Your task to perform on an android device: Clear the shopping cart on newegg.com. Search for duracell triple a on newegg.com, select the first entry, add it to the cart, then select checkout. Image 0: 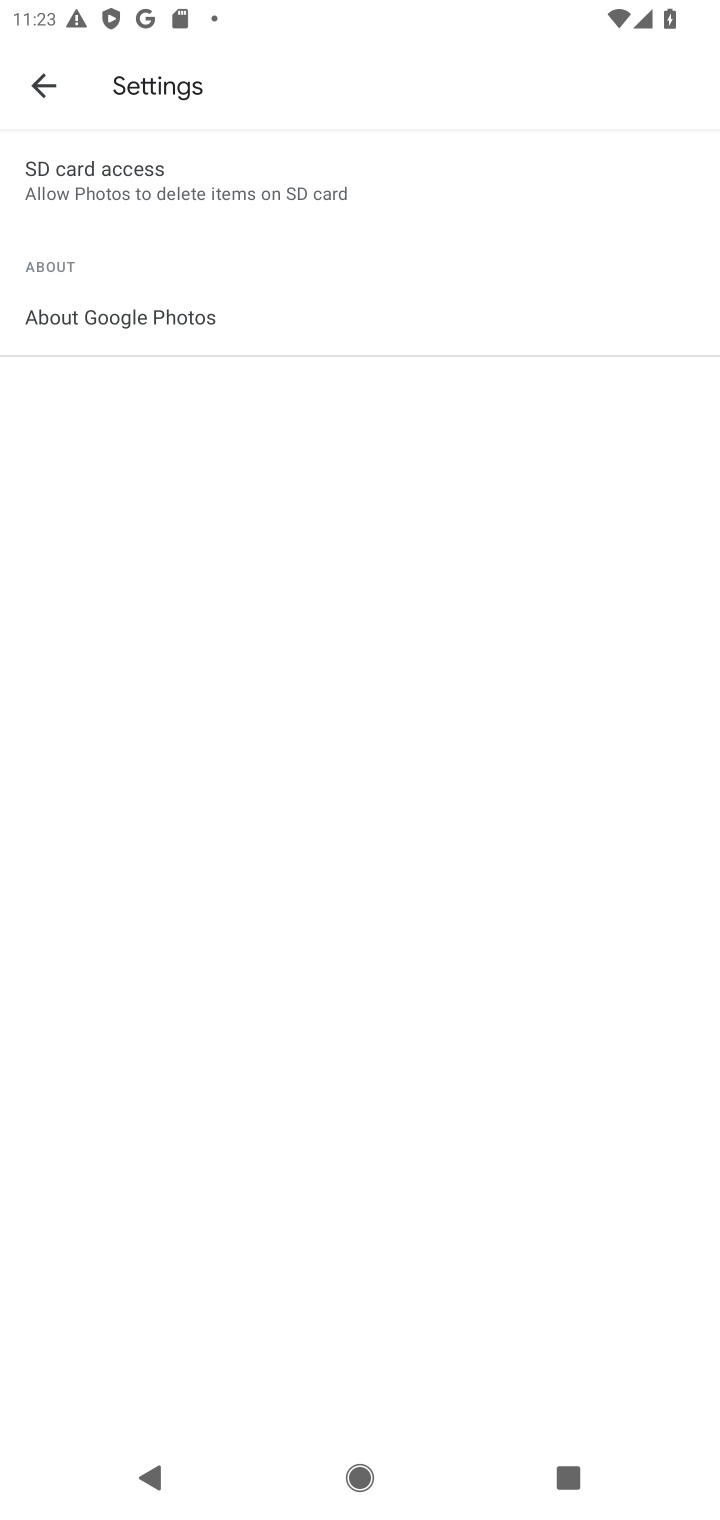
Step 0: press home button
Your task to perform on an android device: Clear the shopping cart on newegg.com. Search for duracell triple a on newegg.com, select the first entry, add it to the cart, then select checkout. Image 1: 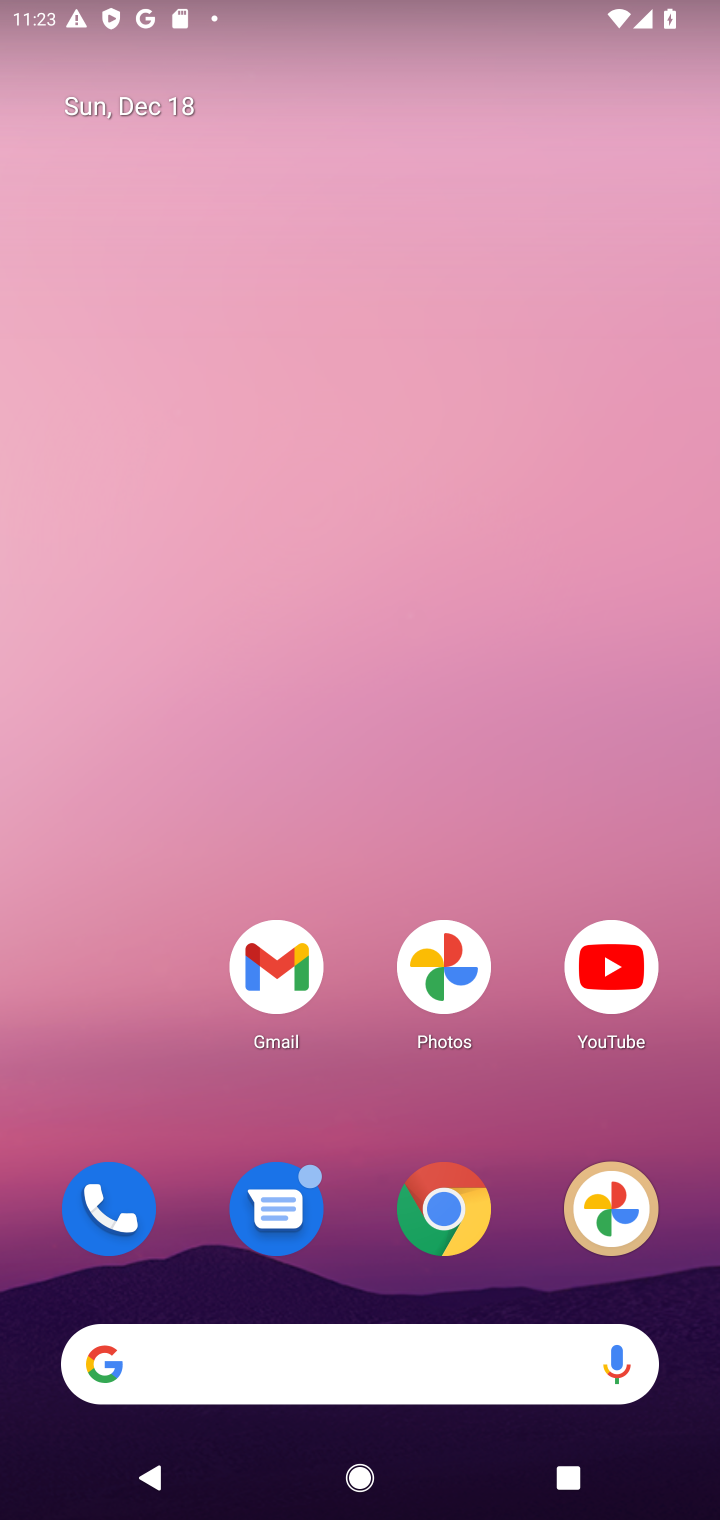
Step 1: click (444, 1185)
Your task to perform on an android device: Clear the shopping cart on newegg.com. Search for duracell triple a on newegg.com, select the first entry, add it to the cart, then select checkout. Image 2: 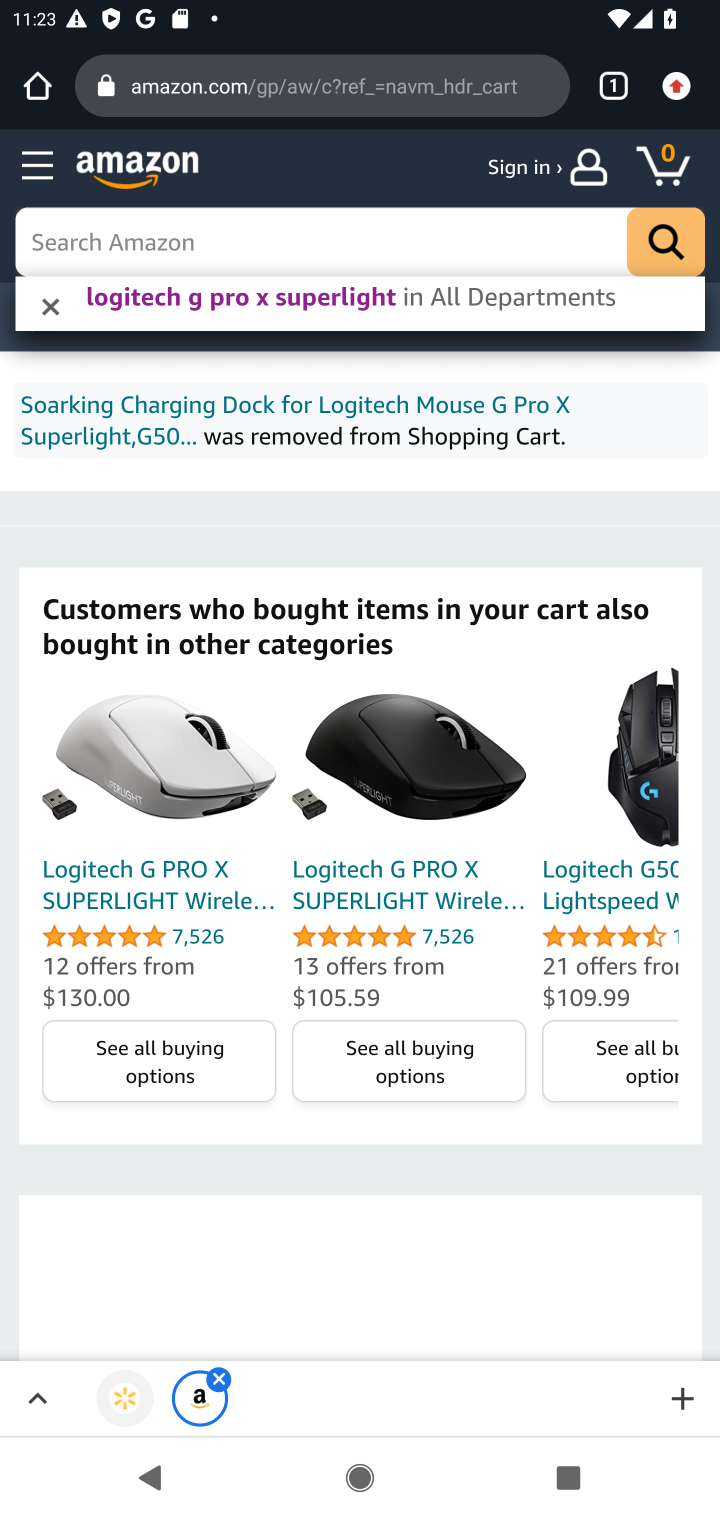
Step 2: click (333, 91)
Your task to perform on an android device: Clear the shopping cart on newegg.com. Search for duracell triple a on newegg.com, select the first entry, add it to the cart, then select checkout. Image 3: 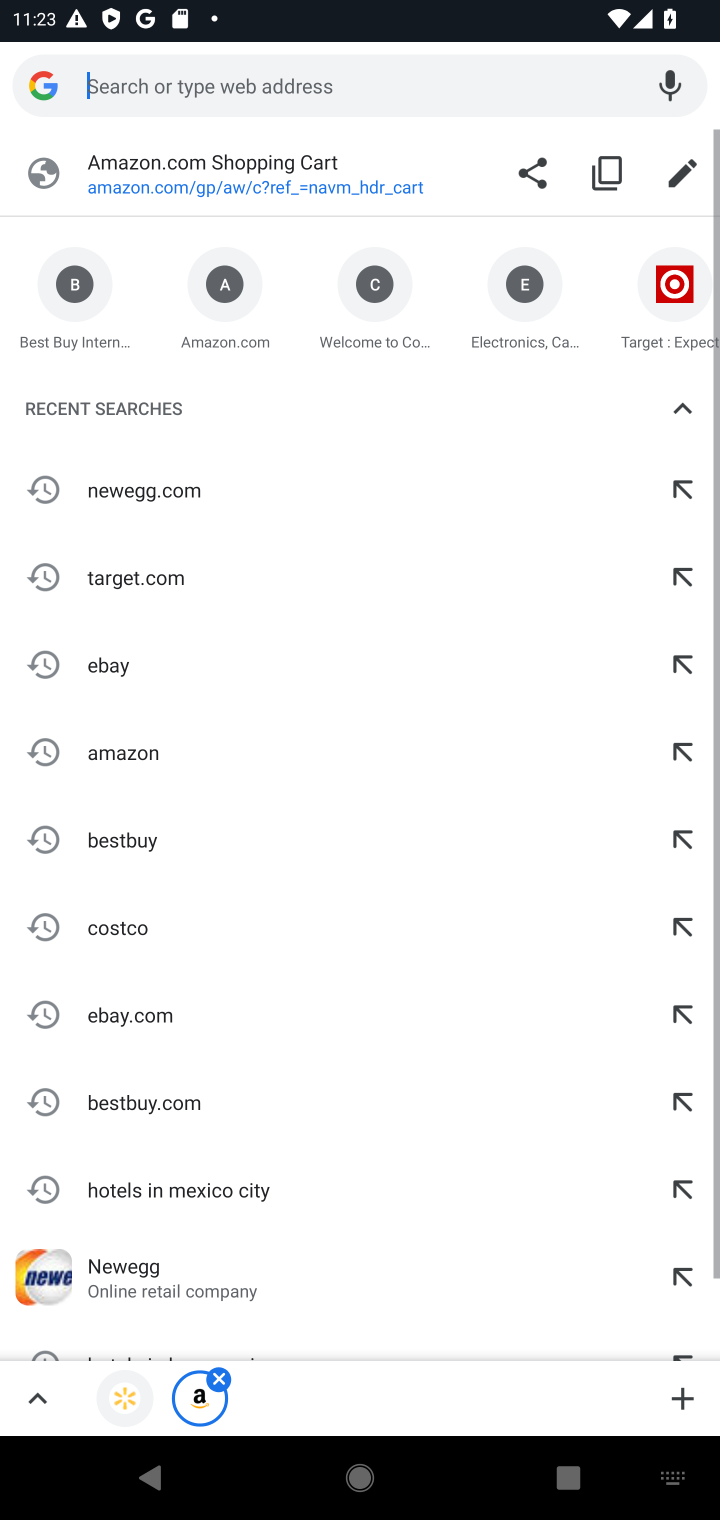
Step 3: click (177, 487)
Your task to perform on an android device: Clear the shopping cart on newegg.com. Search for duracell triple a on newegg.com, select the first entry, add it to the cart, then select checkout. Image 4: 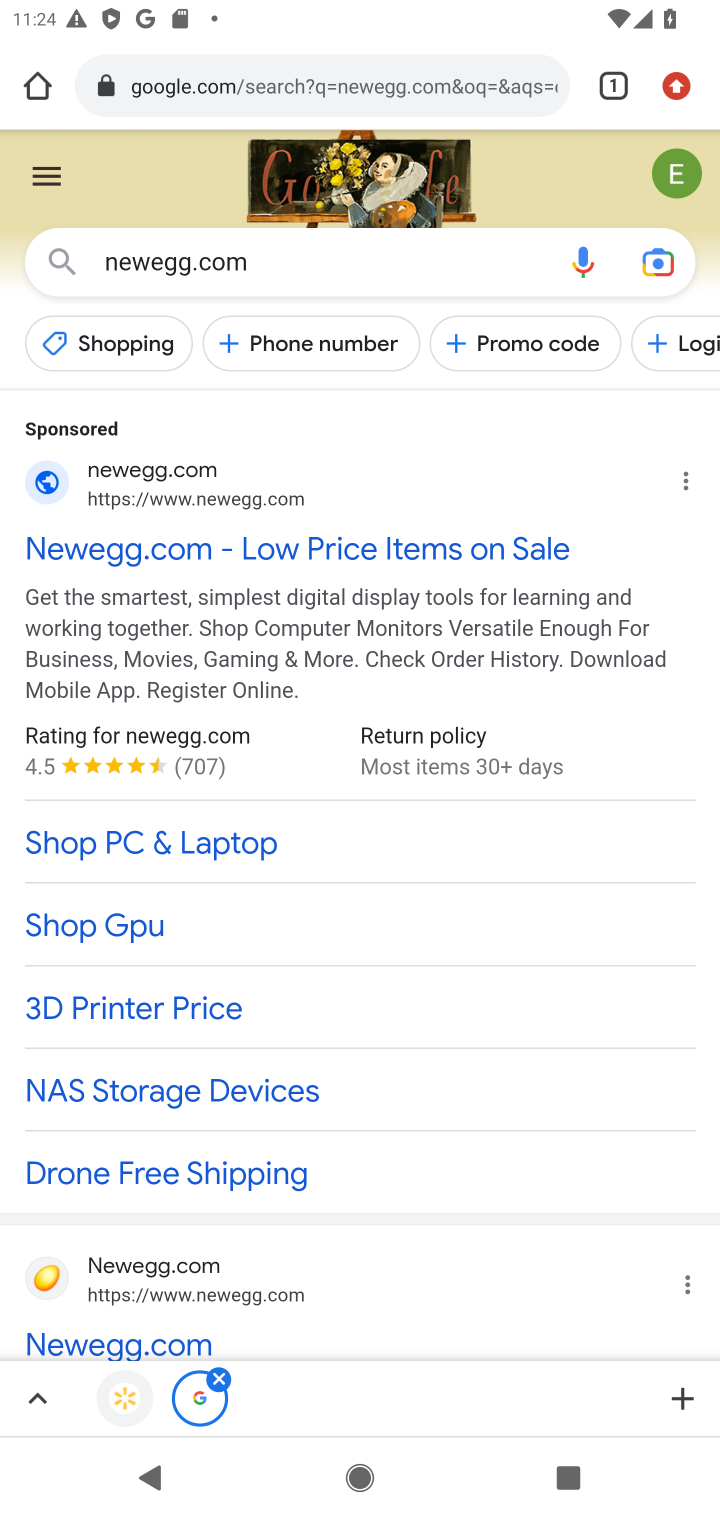
Step 4: click (443, 550)
Your task to perform on an android device: Clear the shopping cart on newegg.com. Search for duracell triple a on newegg.com, select the first entry, add it to the cart, then select checkout. Image 5: 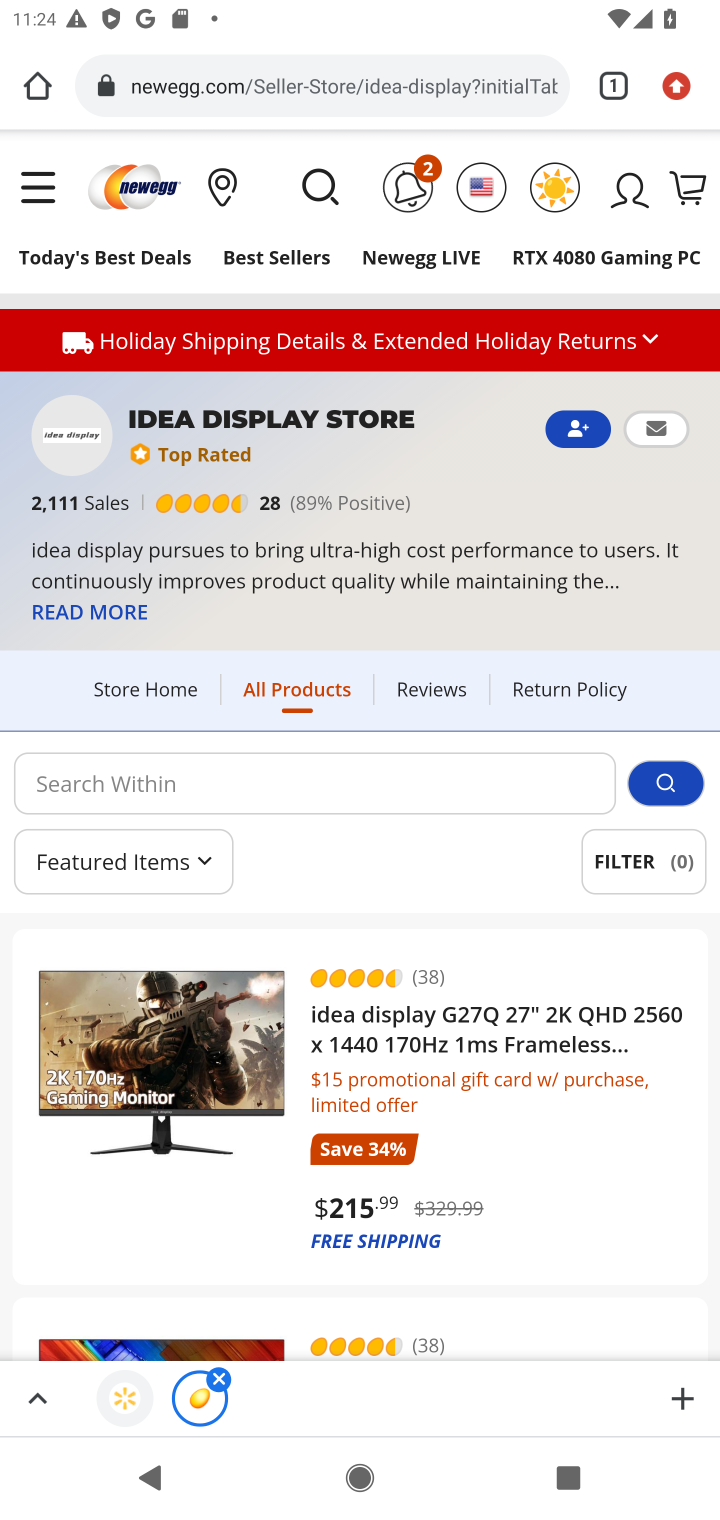
Step 5: click (150, 184)
Your task to perform on an android device: Clear the shopping cart on newegg.com. Search for duracell triple a on newegg.com, select the first entry, add it to the cart, then select checkout. Image 6: 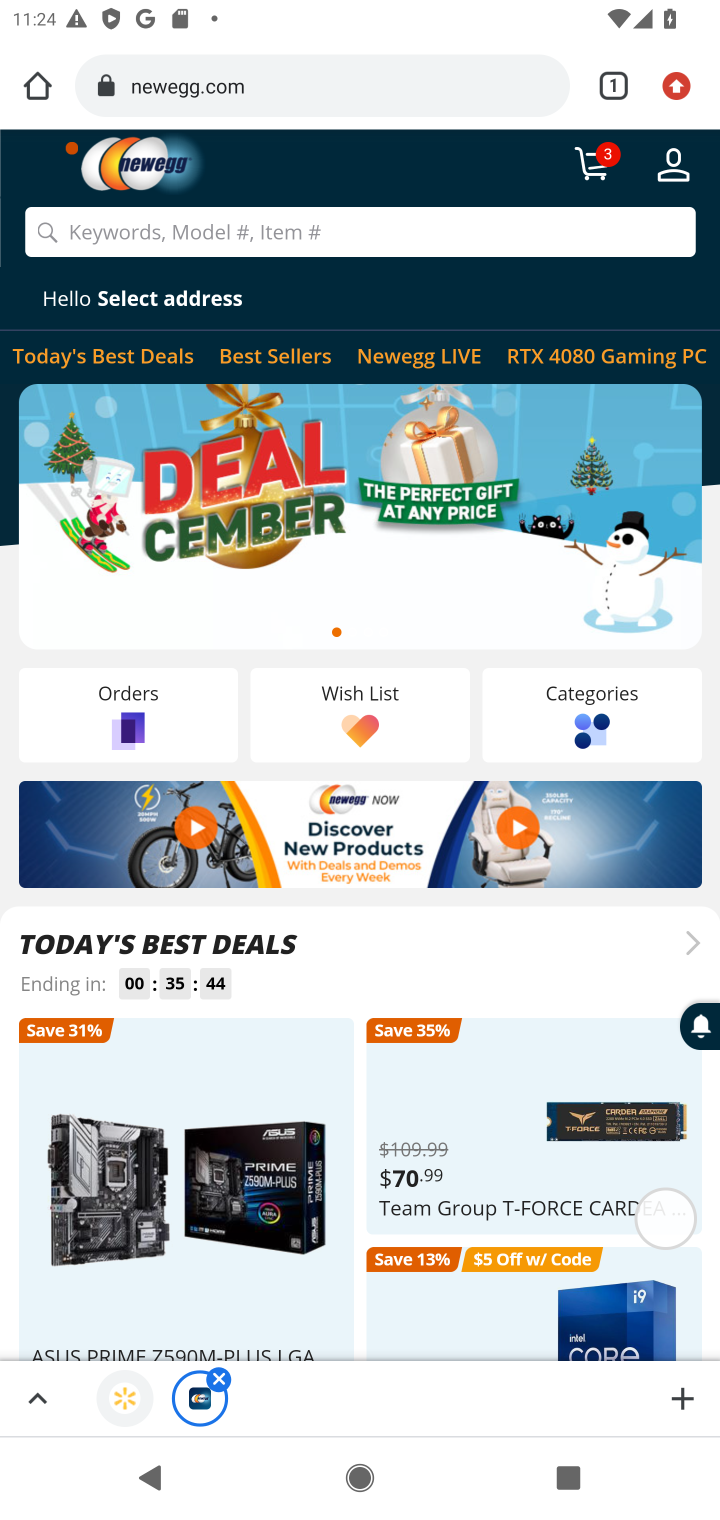
Step 6: click (492, 235)
Your task to perform on an android device: Clear the shopping cart on newegg.com. Search for duracell triple a on newegg.com, select the first entry, add it to the cart, then select checkout. Image 7: 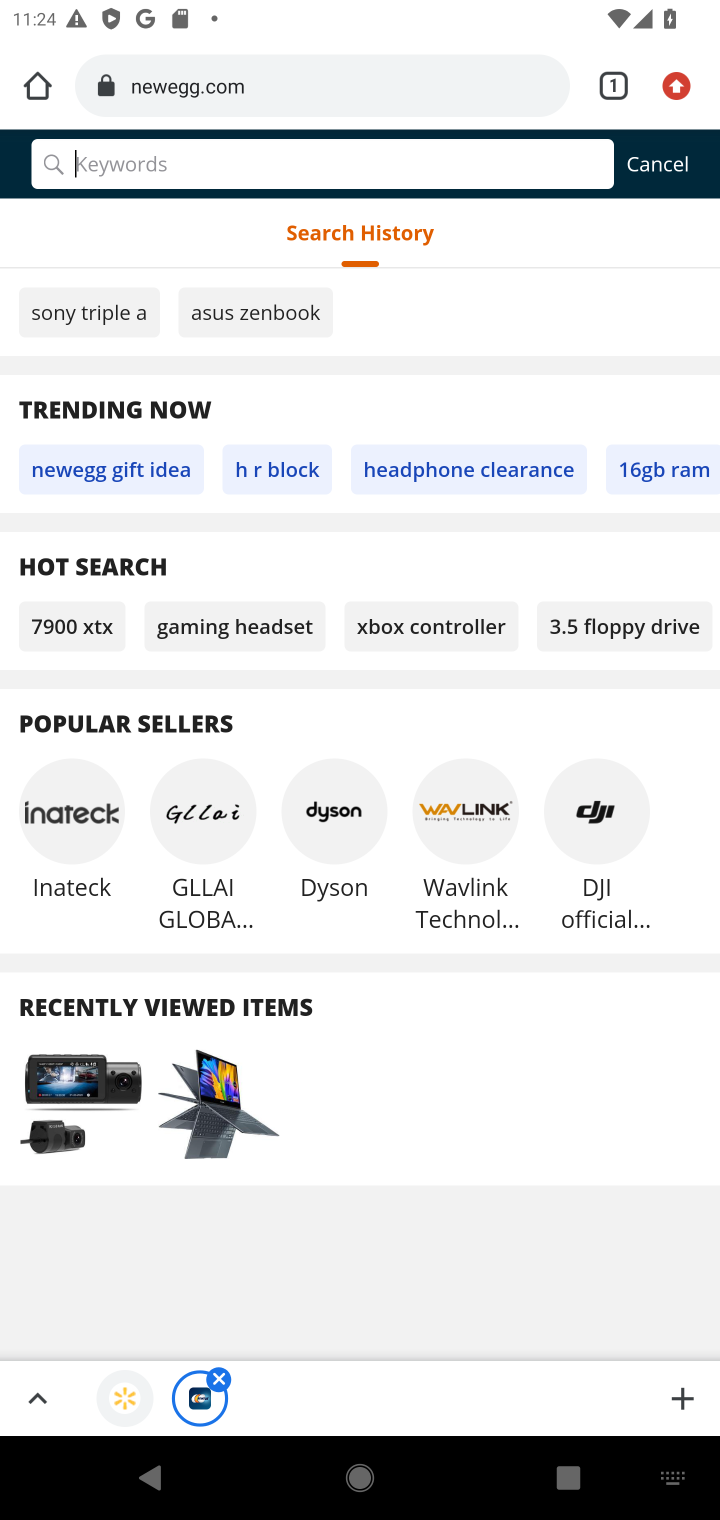
Step 7: type "duracell triple a"
Your task to perform on an android device: Clear the shopping cart on newegg.com. Search for duracell triple a on newegg.com, select the first entry, add it to the cart, then select checkout. Image 8: 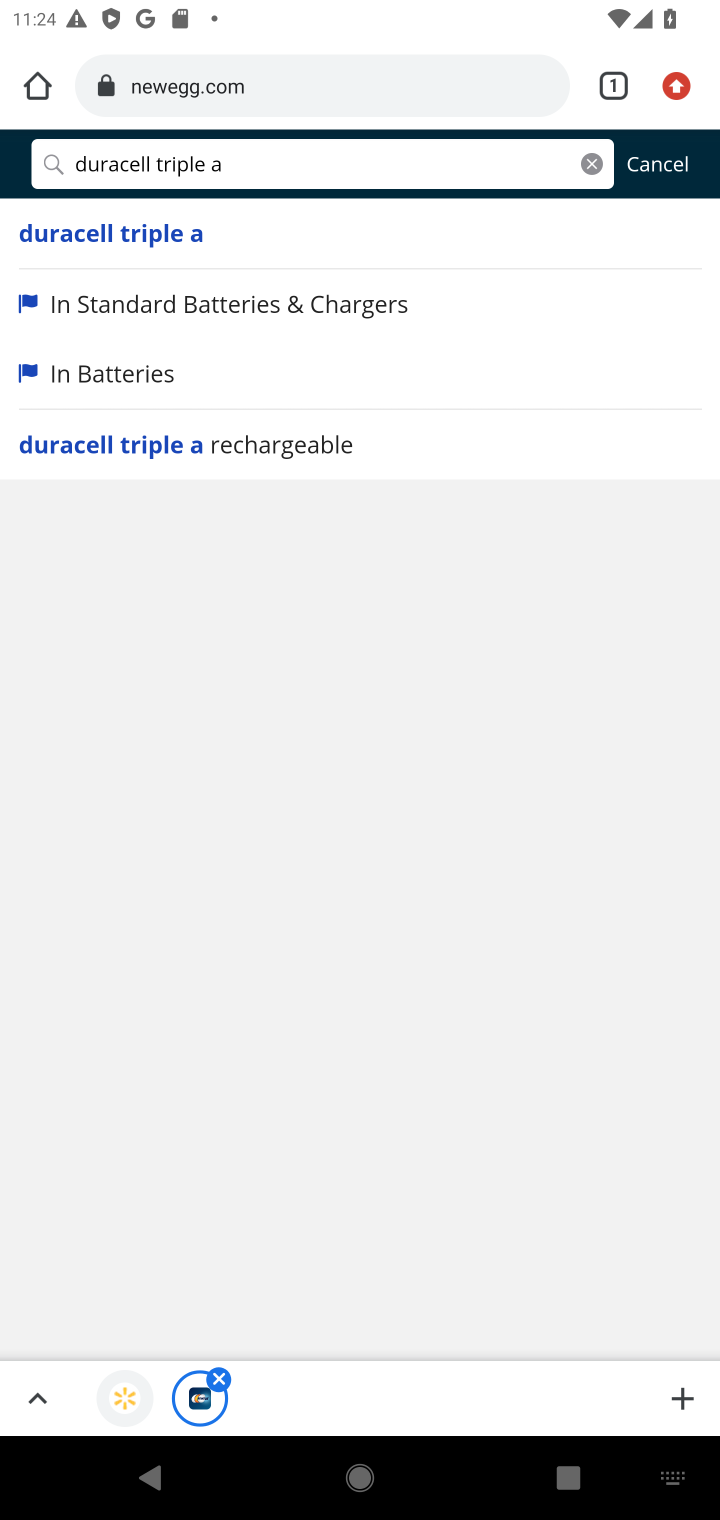
Step 8: click (103, 242)
Your task to perform on an android device: Clear the shopping cart on newegg.com. Search for duracell triple a on newegg.com, select the first entry, add it to the cart, then select checkout. Image 9: 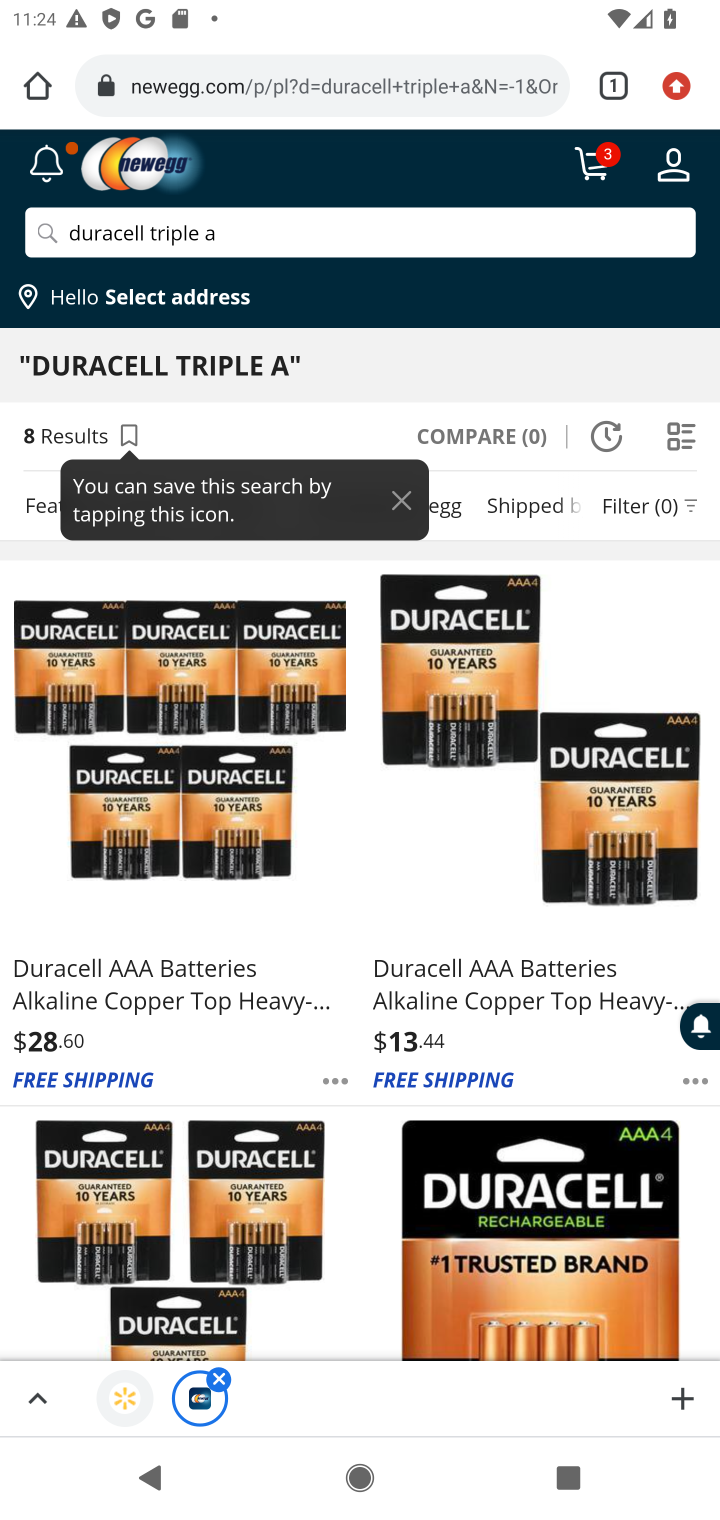
Step 9: click (251, 762)
Your task to perform on an android device: Clear the shopping cart on newegg.com. Search for duracell triple a on newegg.com, select the first entry, add it to the cart, then select checkout. Image 10: 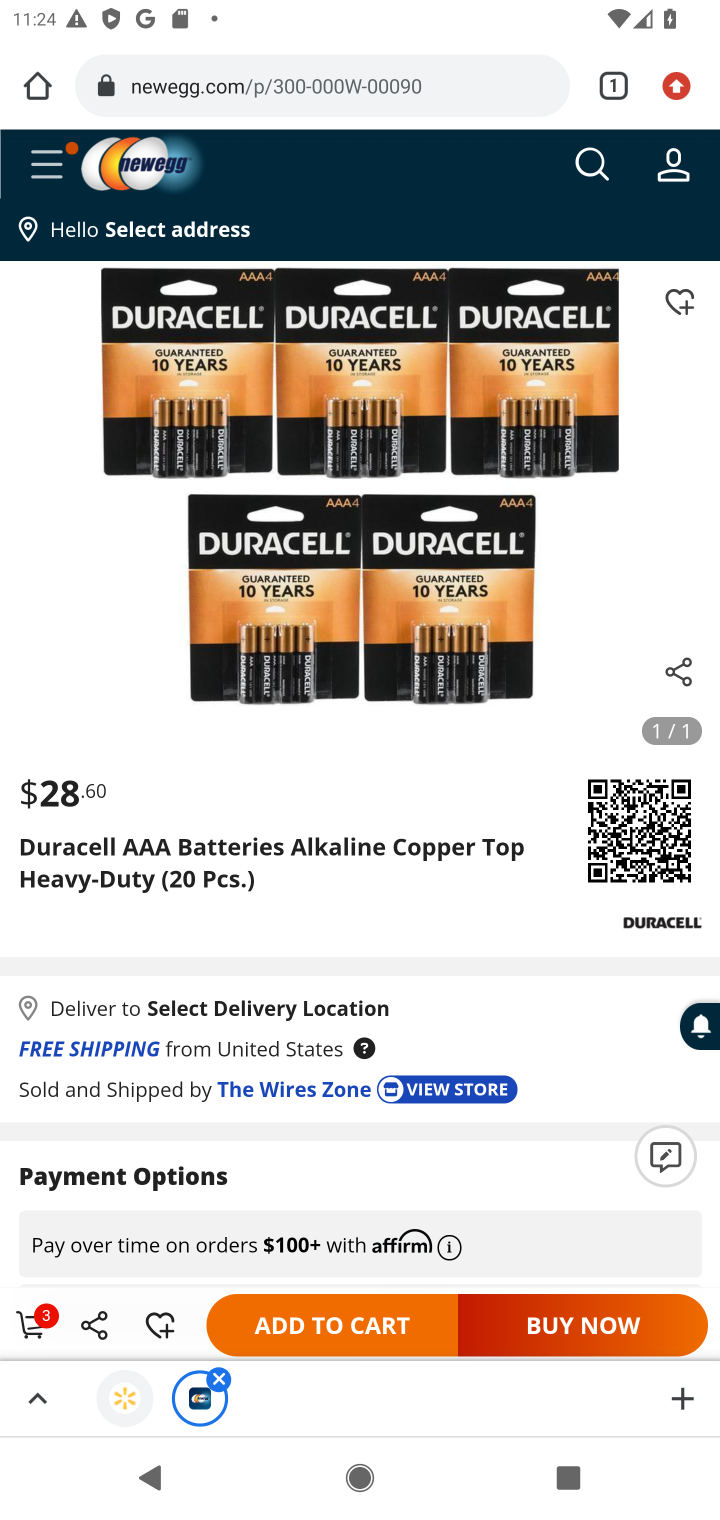
Step 10: click (349, 1327)
Your task to perform on an android device: Clear the shopping cart on newegg.com. Search for duracell triple a on newegg.com, select the first entry, add it to the cart, then select checkout. Image 11: 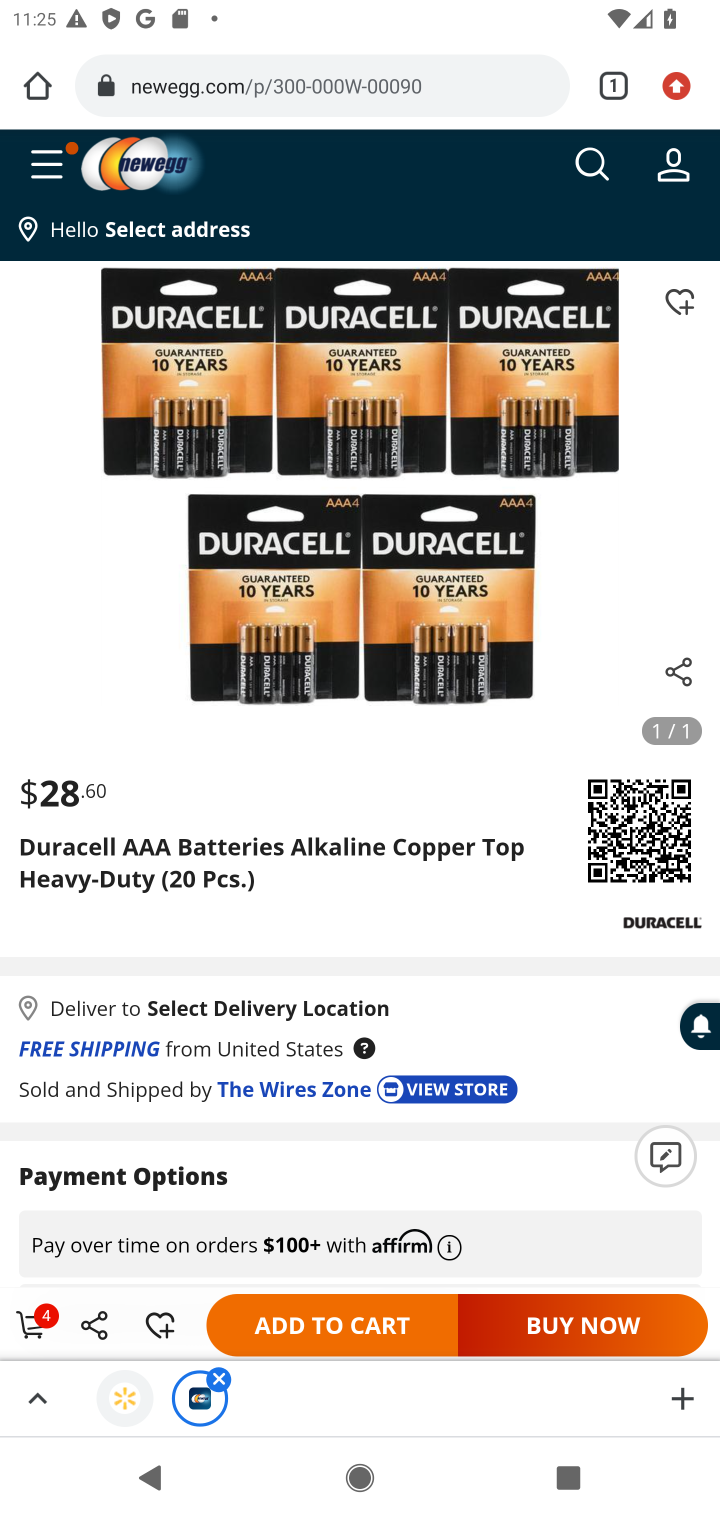
Step 11: click (30, 1324)
Your task to perform on an android device: Clear the shopping cart on newegg.com. Search for duracell triple a on newegg.com, select the first entry, add it to the cart, then select checkout. Image 12: 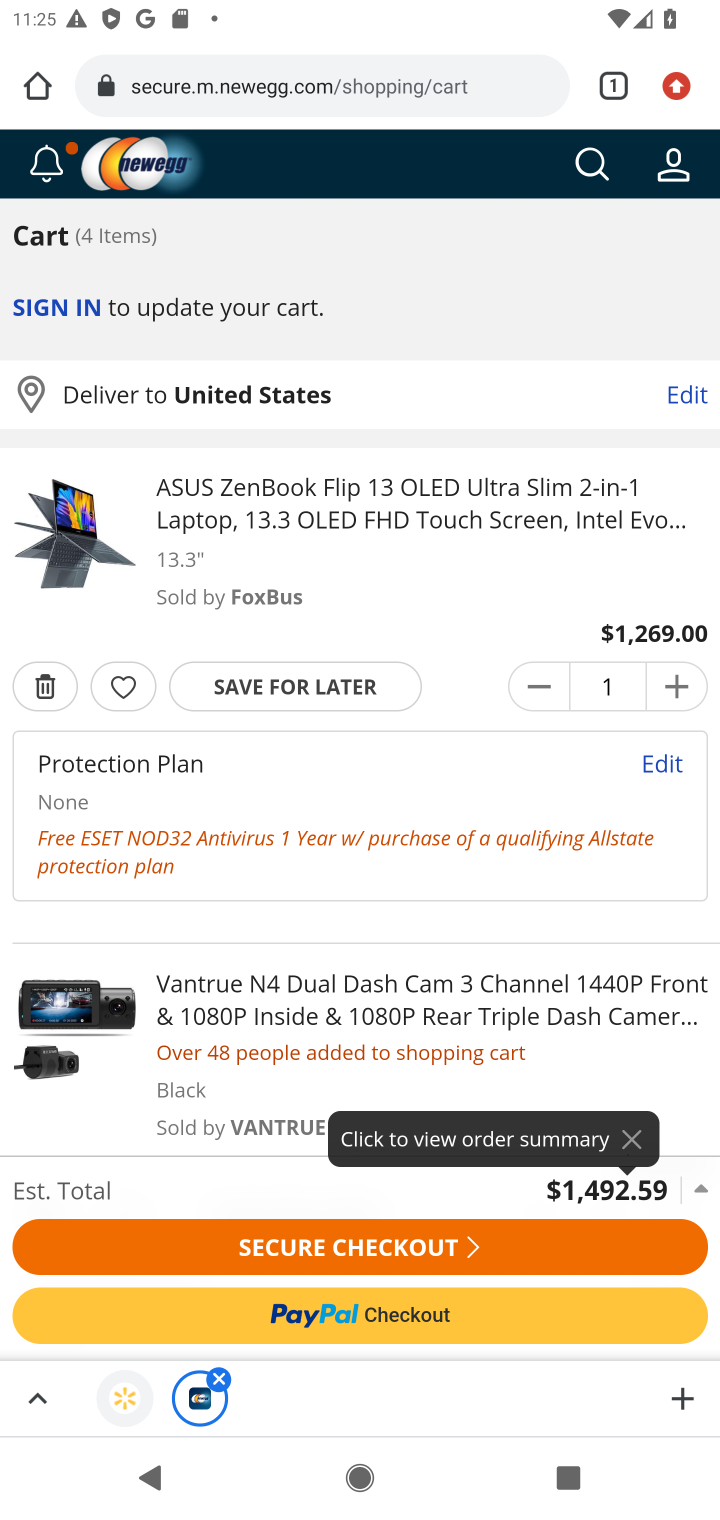
Step 12: click (381, 1241)
Your task to perform on an android device: Clear the shopping cart on newegg.com. Search for duracell triple a on newegg.com, select the first entry, add it to the cart, then select checkout. Image 13: 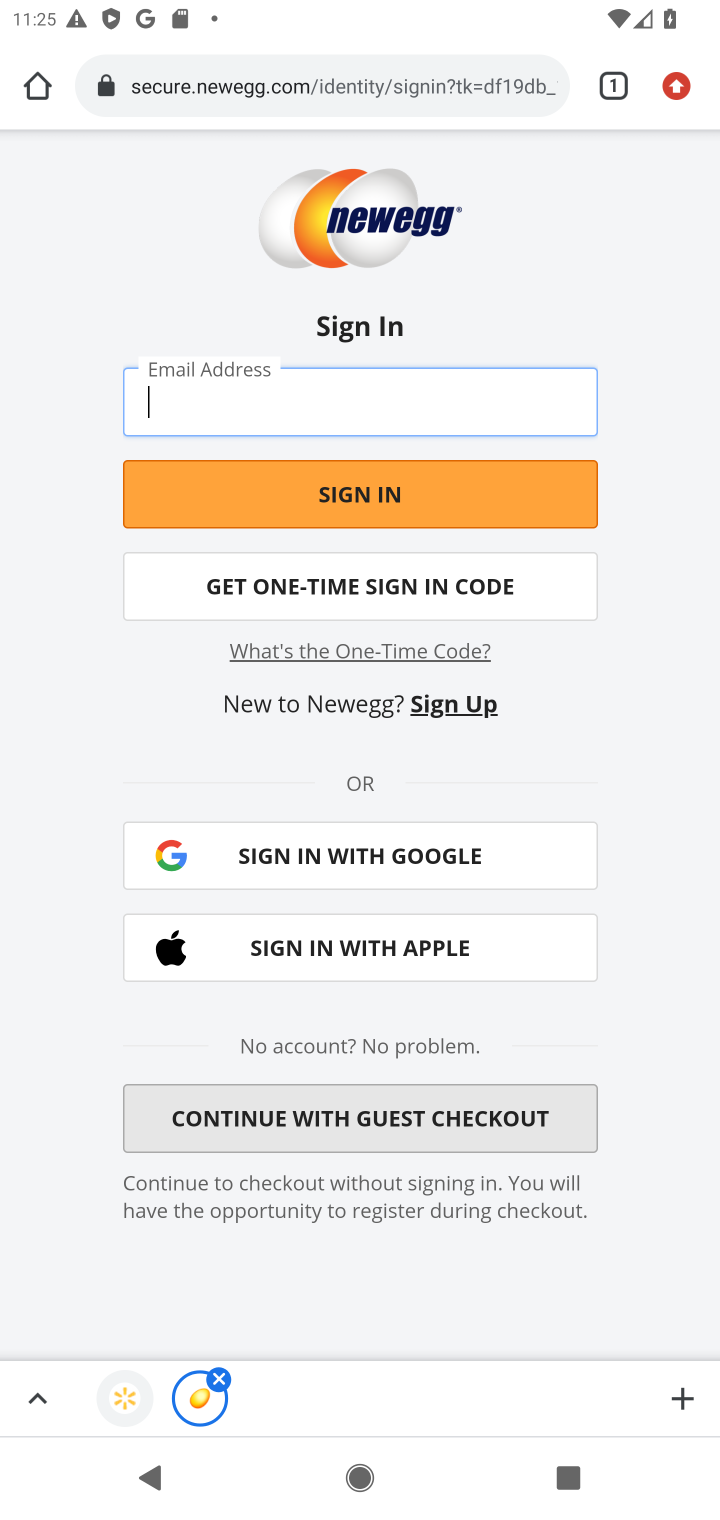
Step 13: task complete